Your task to perform on an android device: open a bookmark in the chrome app Image 0: 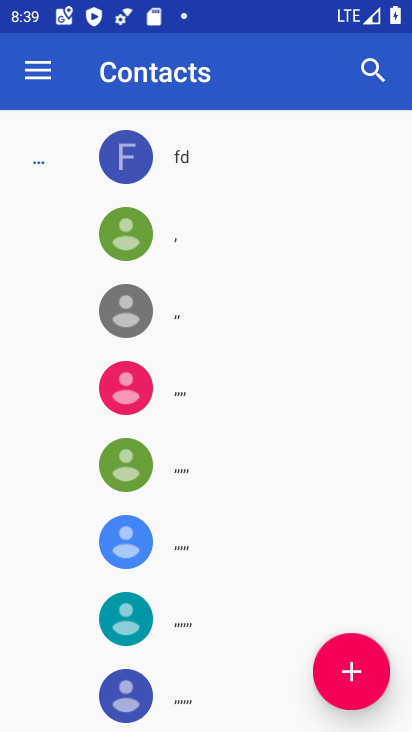
Step 0: press home button
Your task to perform on an android device: open a bookmark in the chrome app Image 1: 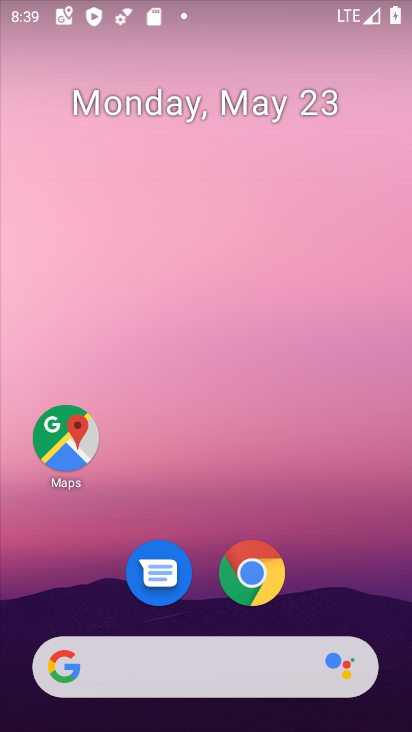
Step 1: click (255, 562)
Your task to perform on an android device: open a bookmark in the chrome app Image 2: 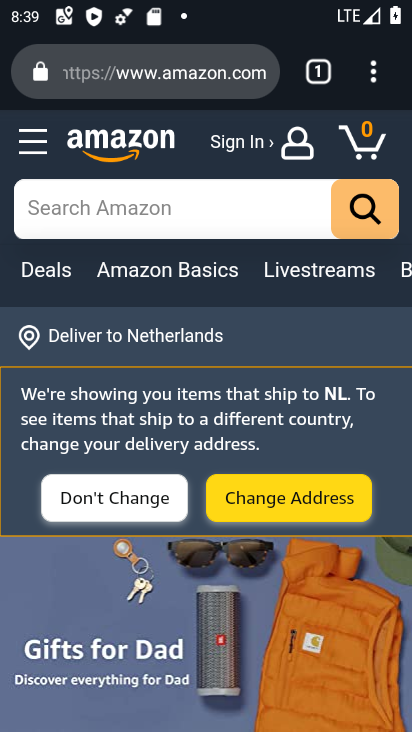
Step 2: click (373, 80)
Your task to perform on an android device: open a bookmark in the chrome app Image 3: 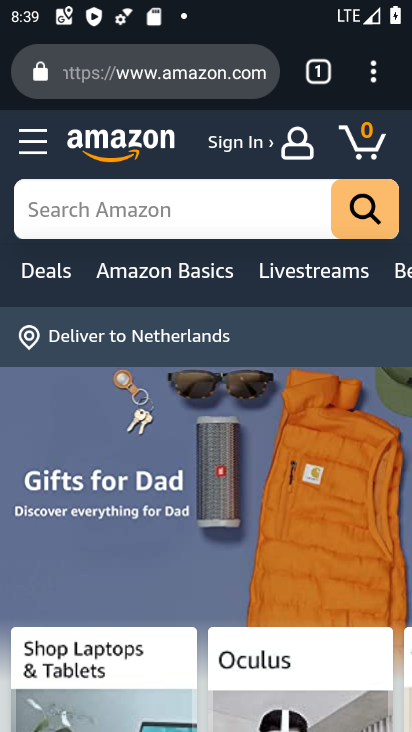
Step 3: click (373, 81)
Your task to perform on an android device: open a bookmark in the chrome app Image 4: 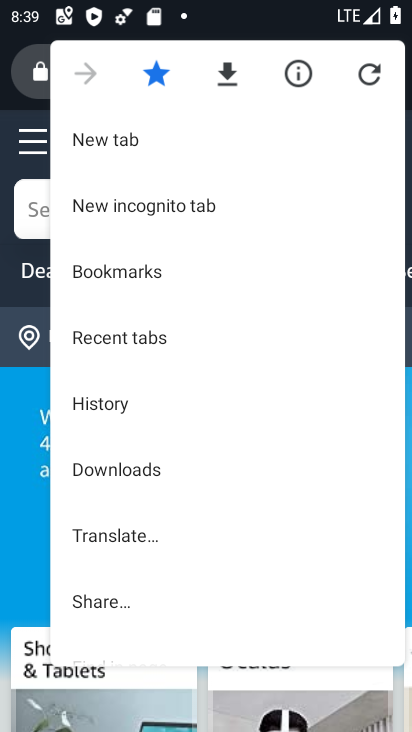
Step 4: click (245, 490)
Your task to perform on an android device: open a bookmark in the chrome app Image 5: 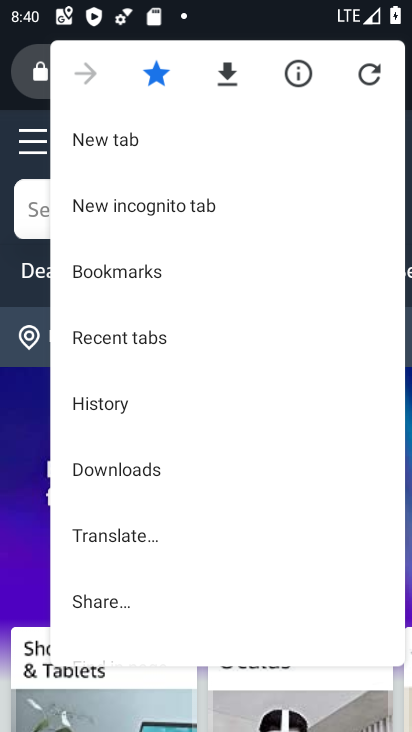
Step 5: click (130, 270)
Your task to perform on an android device: open a bookmark in the chrome app Image 6: 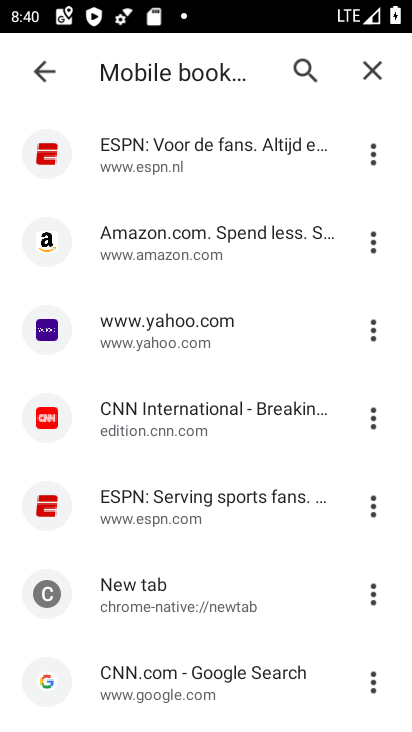
Step 6: drag from (191, 577) to (189, 368)
Your task to perform on an android device: open a bookmark in the chrome app Image 7: 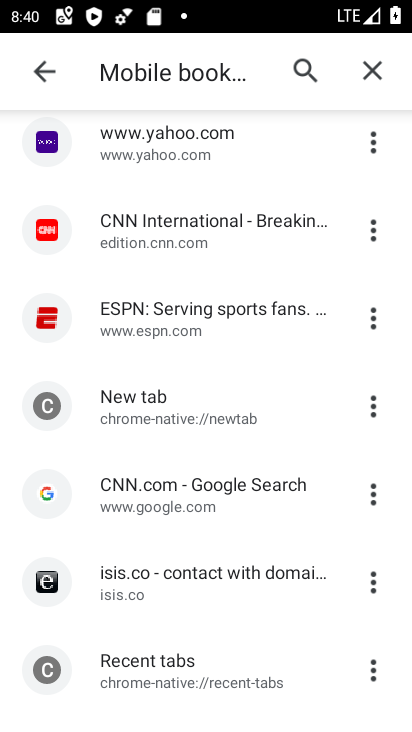
Step 7: click (184, 405)
Your task to perform on an android device: open a bookmark in the chrome app Image 8: 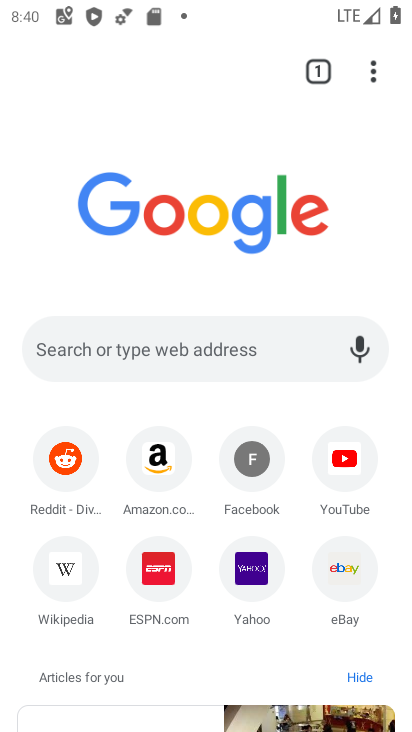
Step 8: task complete